Your task to perform on an android device: read, delete, or share a saved page in the chrome app Image 0: 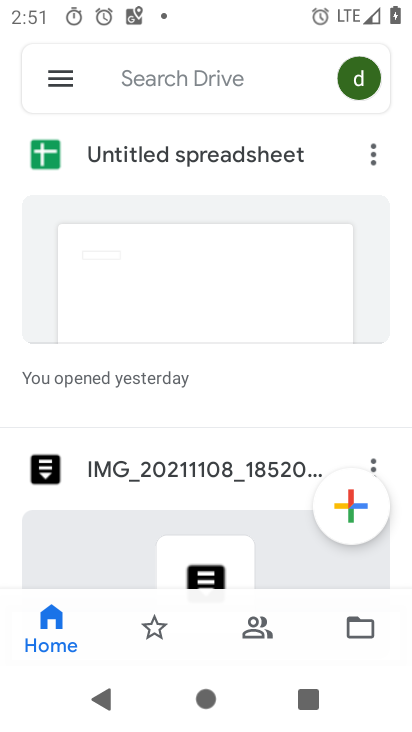
Step 0: press home button
Your task to perform on an android device: read, delete, or share a saved page in the chrome app Image 1: 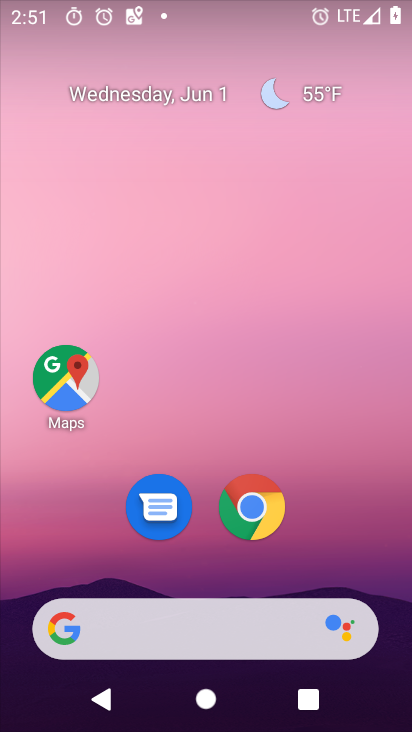
Step 1: click (254, 518)
Your task to perform on an android device: read, delete, or share a saved page in the chrome app Image 2: 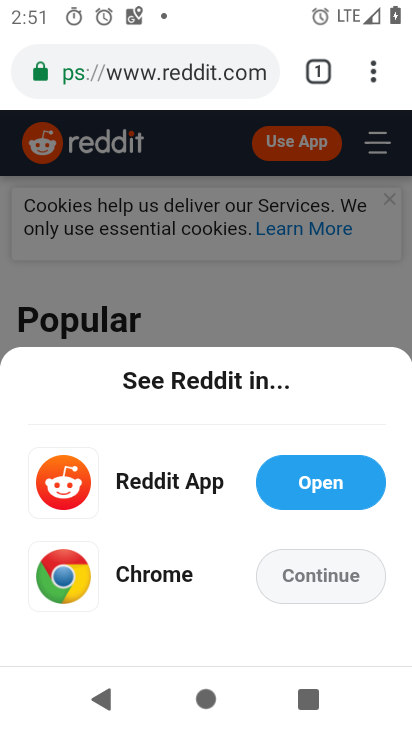
Step 2: click (376, 73)
Your task to perform on an android device: read, delete, or share a saved page in the chrome app Image 3: 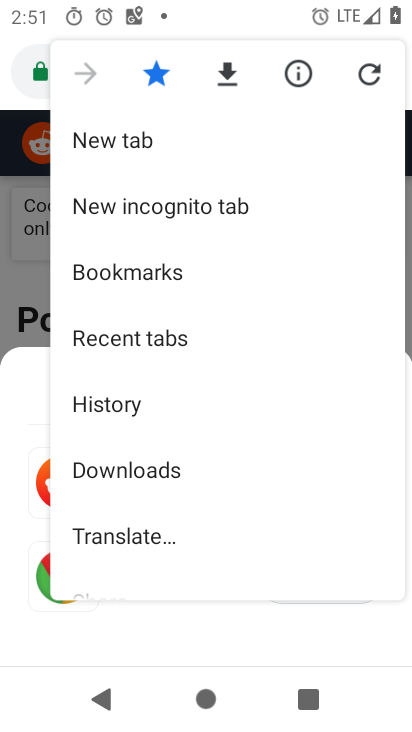
Step 3: click (117, 480)
Your task to perform on an android device: read, delete, or share a saved page in the chrome app Image 4: 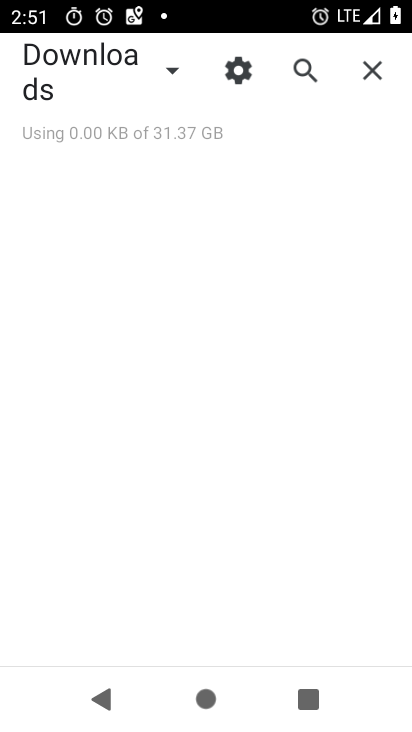
Step 4: click (165, 72)
Your task to perform on an android device: read, delete, or share a saved page in the chrome app Image 5: 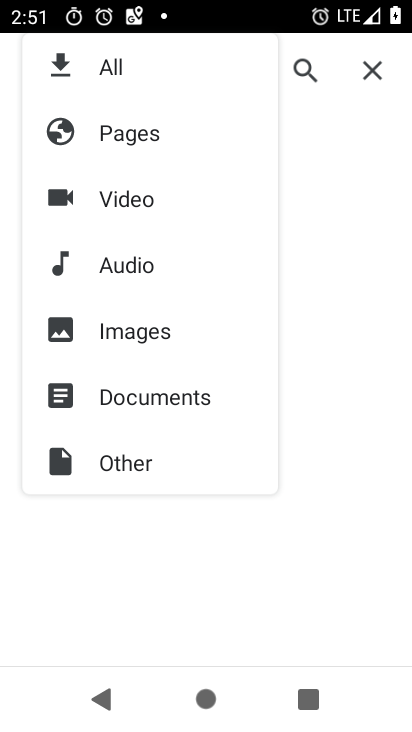
Step 5: click (110, 148)
Your task to perform on an android device: read, delete, or share a saved page in the chrome app Image 6: 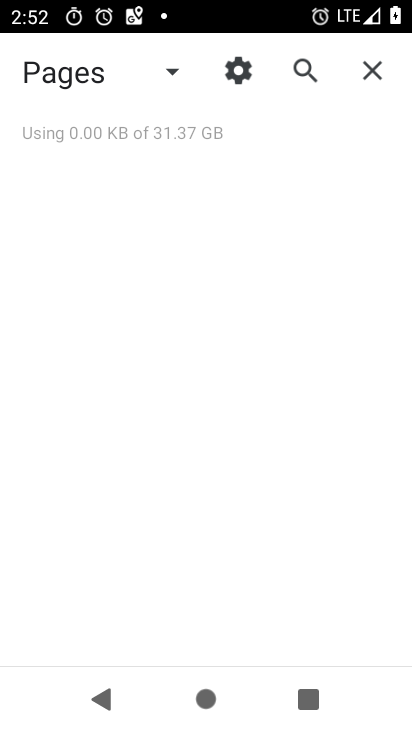
Step 6: task complete